Your task to perform on an android device: turn on showing notifications on the lock screen Image 0: 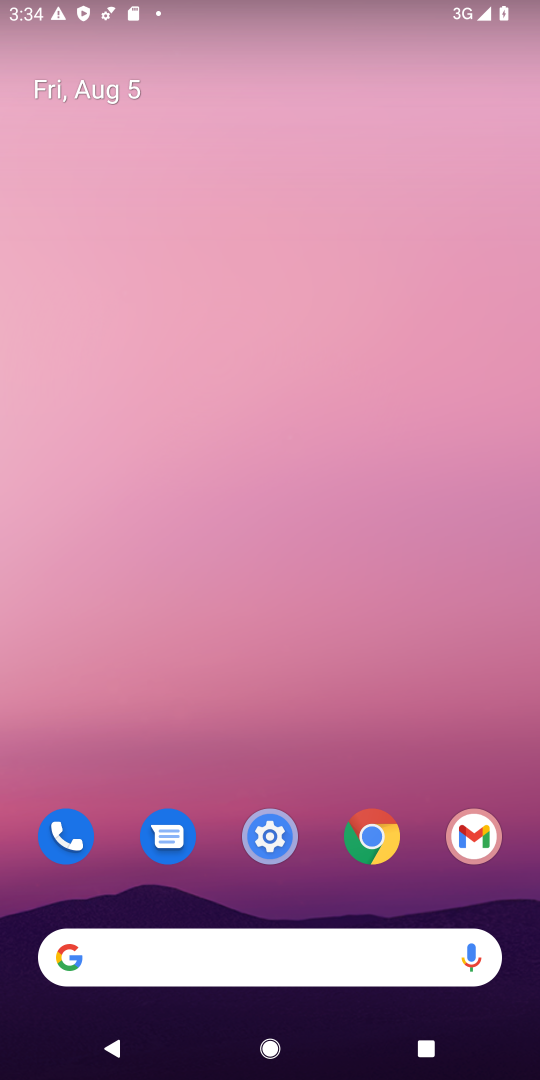
Step 0: drag from (1, 820) to (3, 173)
Your task to perform on an android device: turn on showing notifications on the lock screen Image 1: 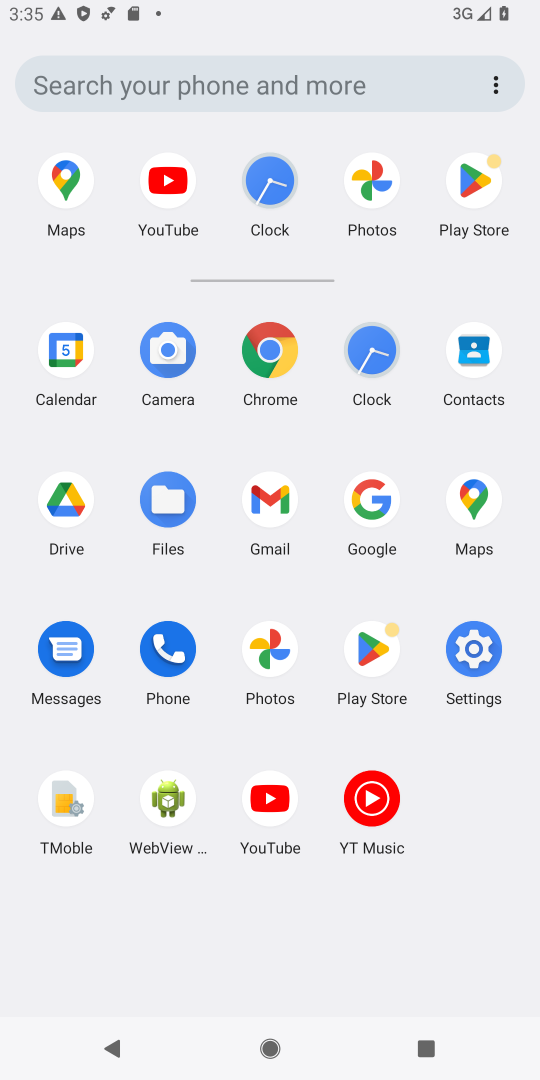
Step 1: click (472, 654)
Your task to perform on an android device: turn on showing notifications on the lock screen Image 2: 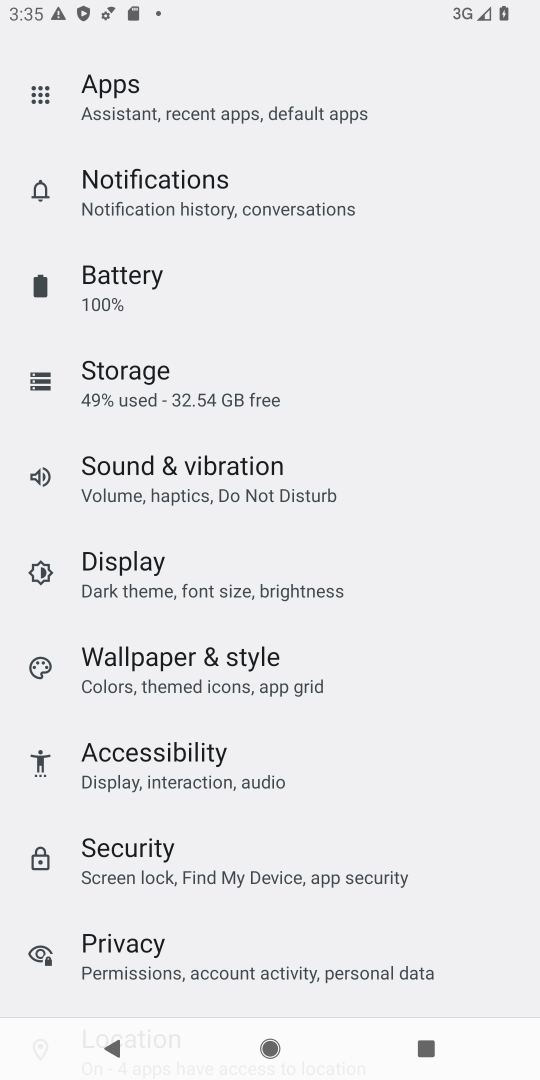
Step 2: click (138, 14)
Your task to perform on an android device: turn on showing notifications on the lock screen Image 3: 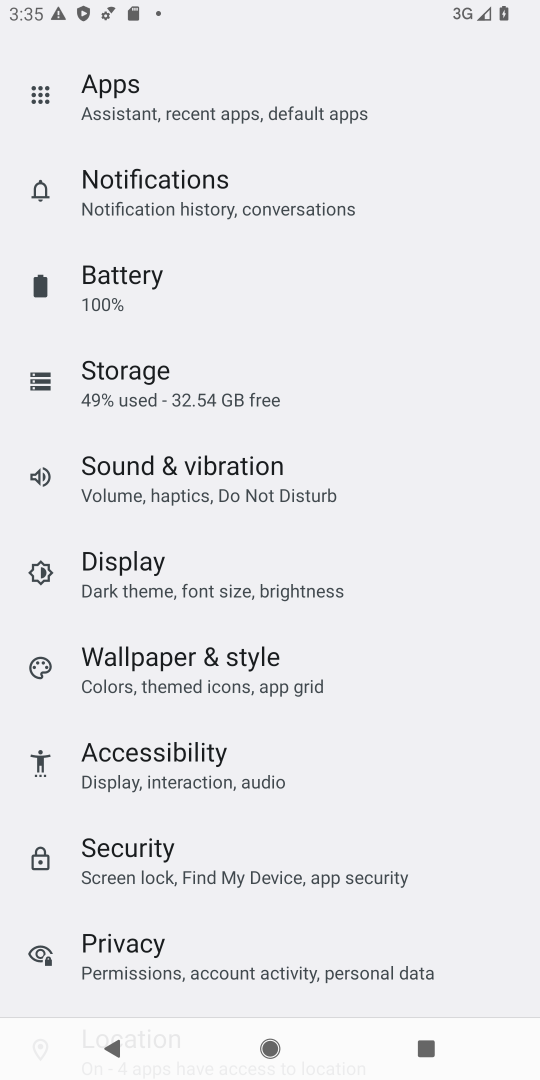
Step 3: click (145, 151)
Your task to perform on an android device: turn on showing notifications on the lock screen Image 4: 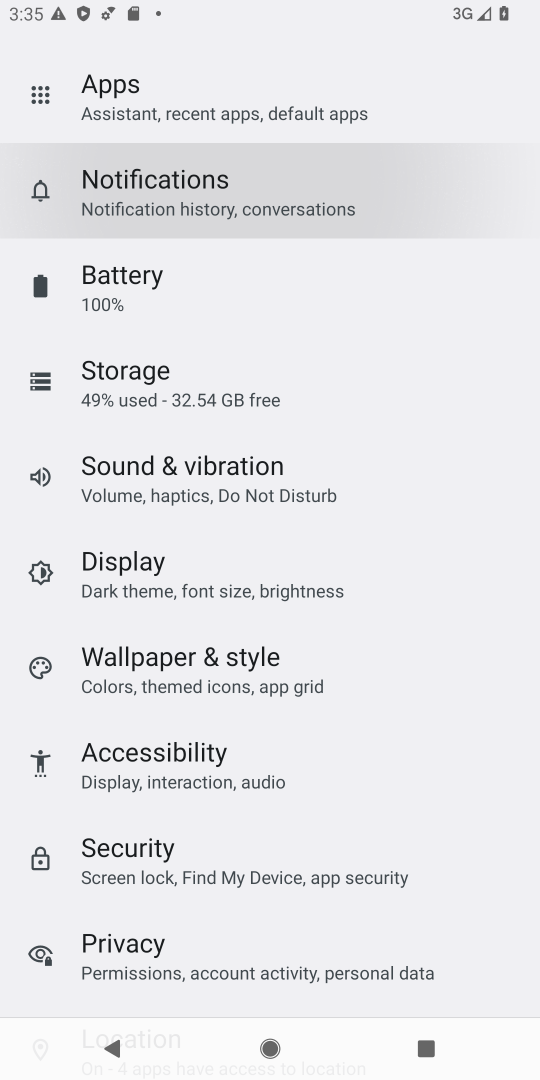
Step 4: click (142, 171)
Your task to perform on an android device: turn on showing notifications on the lock screen Image 5: 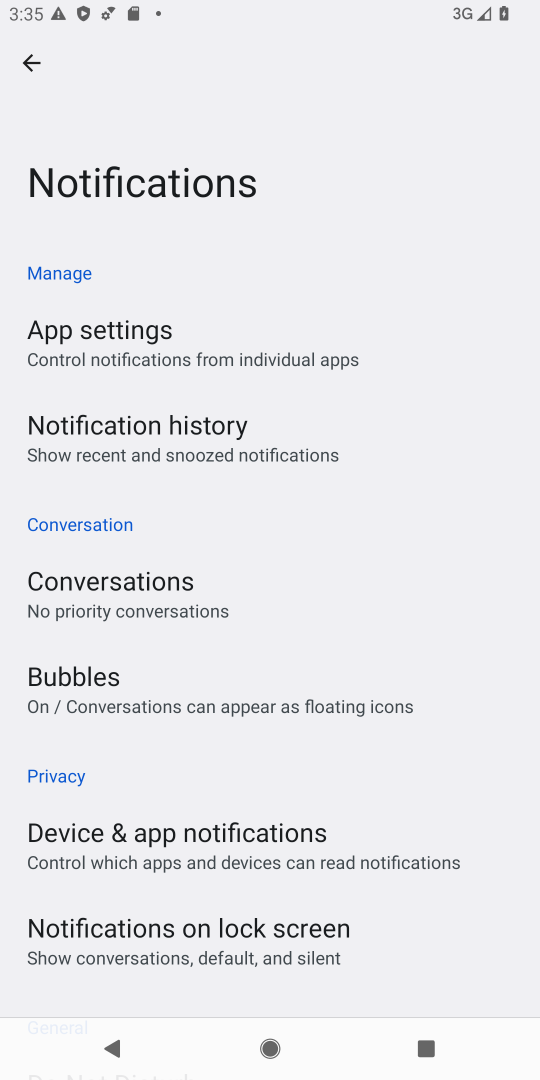
Step 5: click (216, 923)
Your task to perform on an android device: turn on showing notifications on the lock screen Image 6: 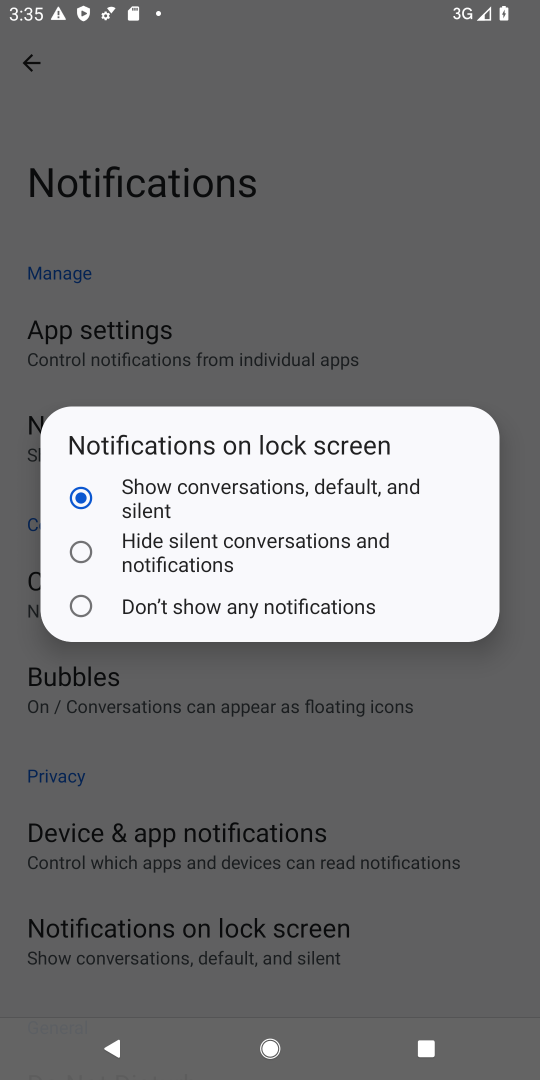
Step 6: task complete